Your task to perform on an android device: Open the calendar and show me this week's events? Image 0: 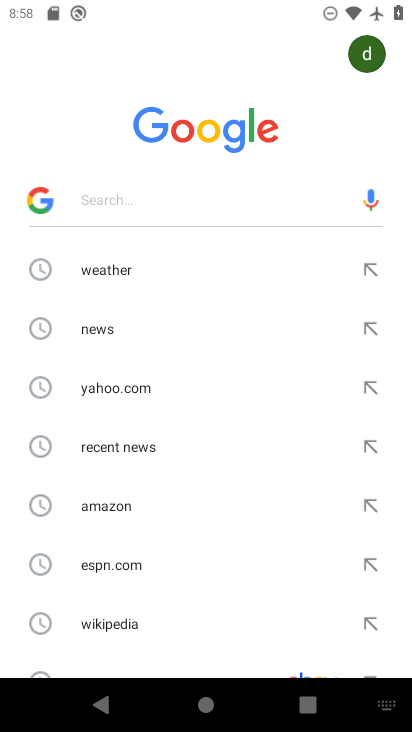
Step 0: press home button
Your task to perform on an android device: Open the calendar and show me this week's events? Image 1: 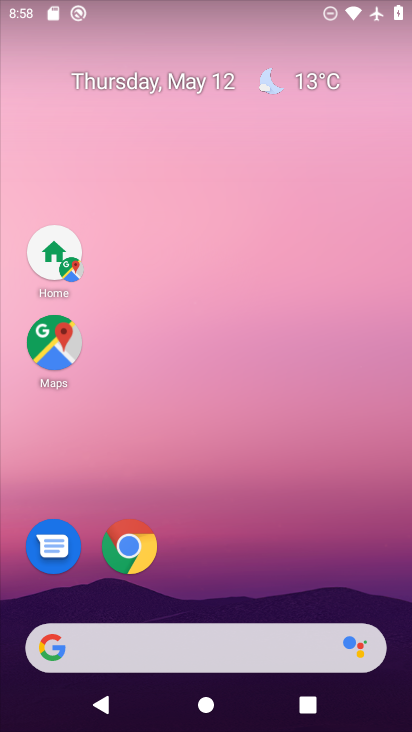
Step 1: drag from (152, 656) to (284, 207)
Your task to perform on an android device: Open the calendar and show me this week's events? Image 2: 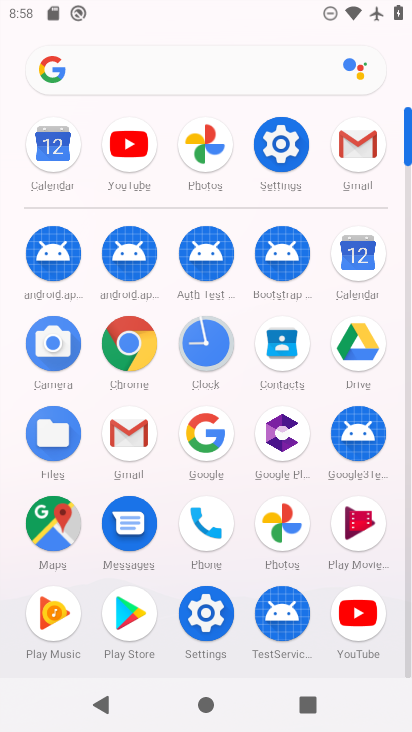
Step 2: click (365, 257)
Your task to perform on an android device: Open the calendar and show me this week's events? Image 3: 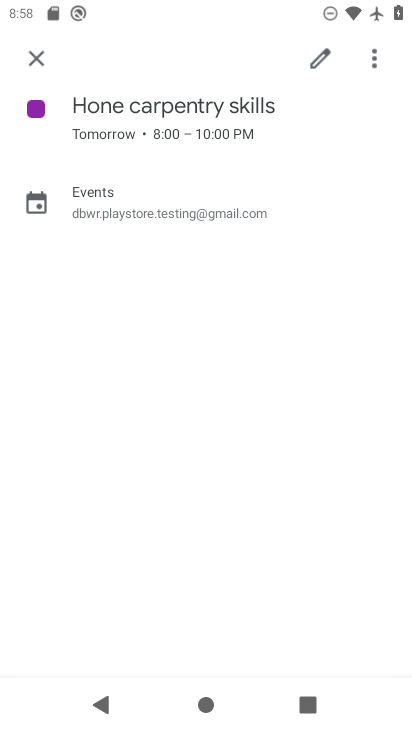
Step 3: click (35, 59)
Your task to perform on an android device: Open the calendar and show me this week's events? Image 4: 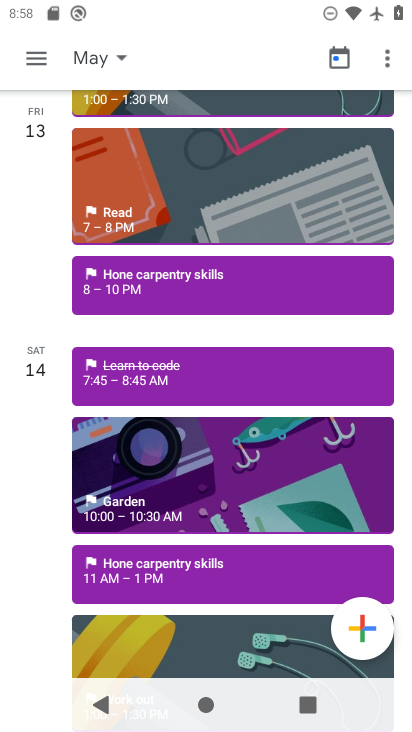
Step 4: click (89, 46)
Your task to perform on an android device: Open the calendar and show me this week's events? Image 5: 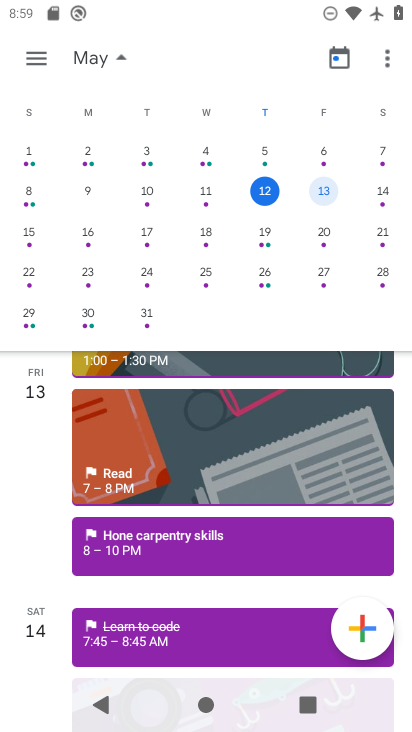
Step 5: click (271, 190)
Your task to perform on an android device: Open the calendar and show me this week's events? Image 6: 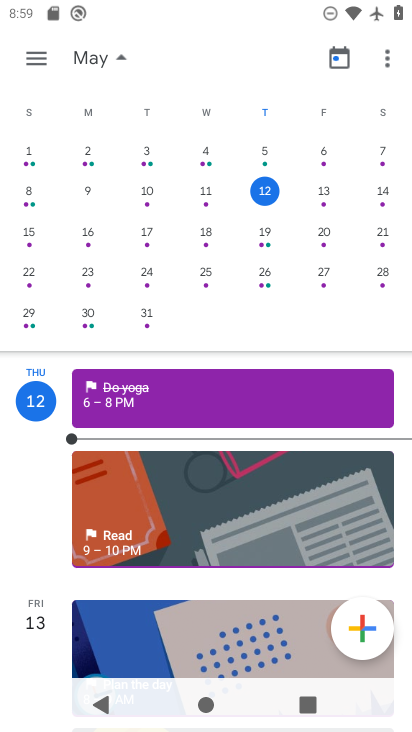
Step 6: click (37, 62)
Your task to perform on an android device: Open the calendar and show me this week's events? Image 7: 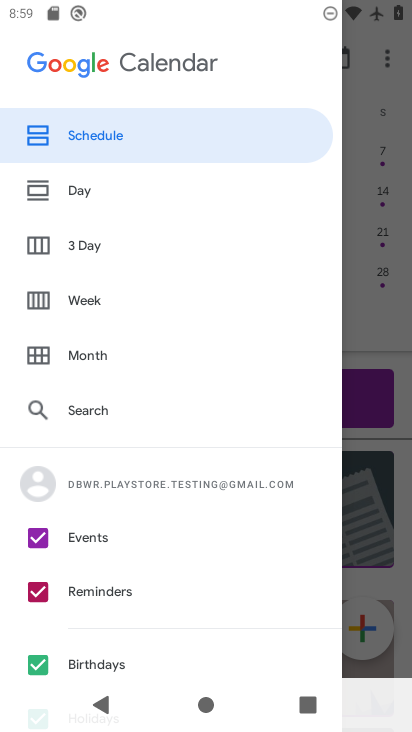
Step 7: click (73, 299)
Your task to perform on an android device: Open the calendar and show me this week's events? Image 8: 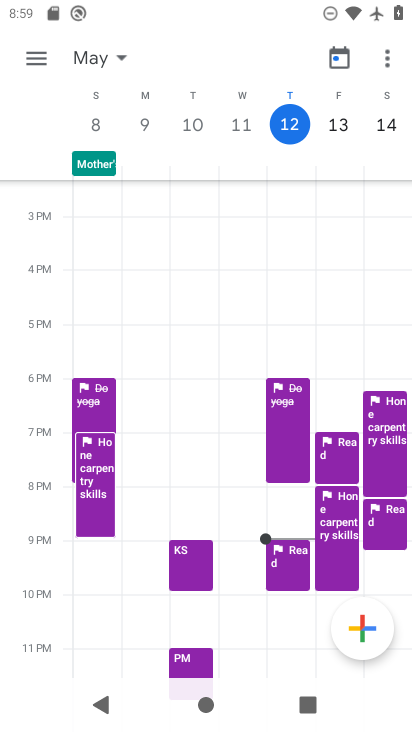
Step 8: click (38, 54)
Your task to perform on an android device: Open the calendar and show me this week's events? Image 9: 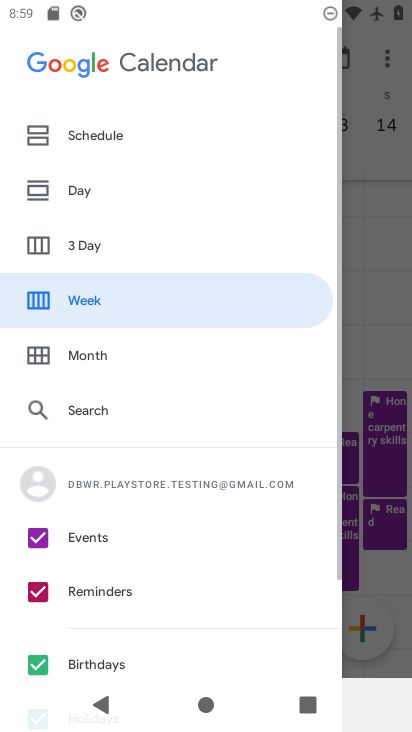
Step 9: click (99, 141)
Your task to perform on an android device: Open the calendar and show me this week's events? Image 10: 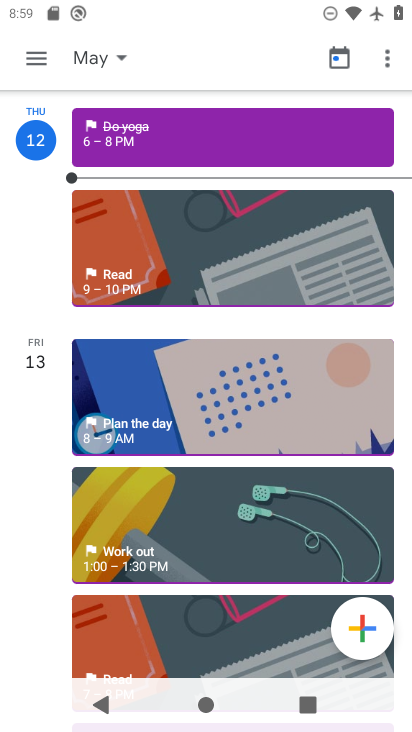
Step 10: drag from (180, 481) to (330, 81)
Your task to perform on an android device: Open the calendar and show me this week's events? Image 11: 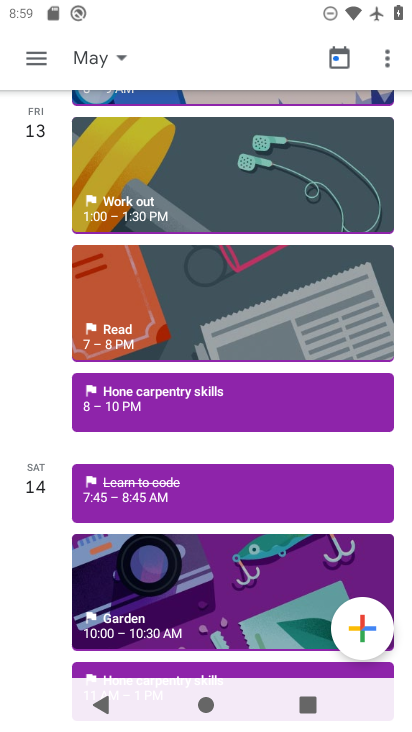
Step 11: click (179, 377)
Your task to perform on an android device: Open the calendar and show me this week's events? Image 12: 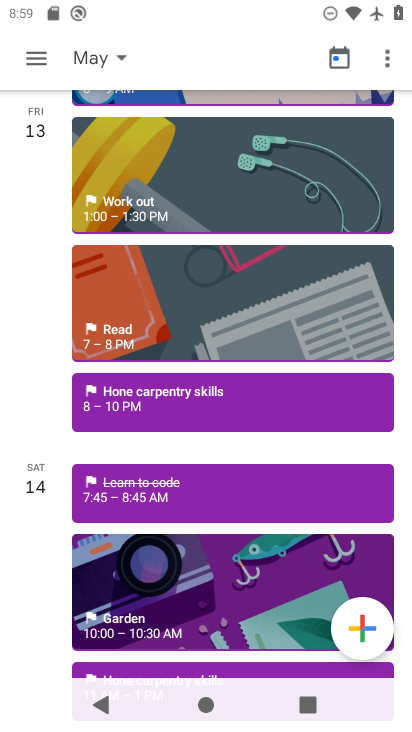
Step 12: click (173, 393)
Your task to perform on an android device: Open the calendar and show me this week's events? Image 13: 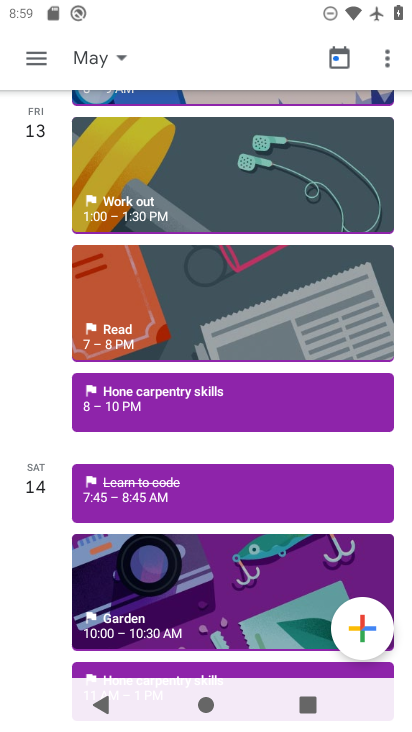
Step 13: click (125, 406)
Your task to perform on an android device: Open the calendar and show me this week's events? Image 14: 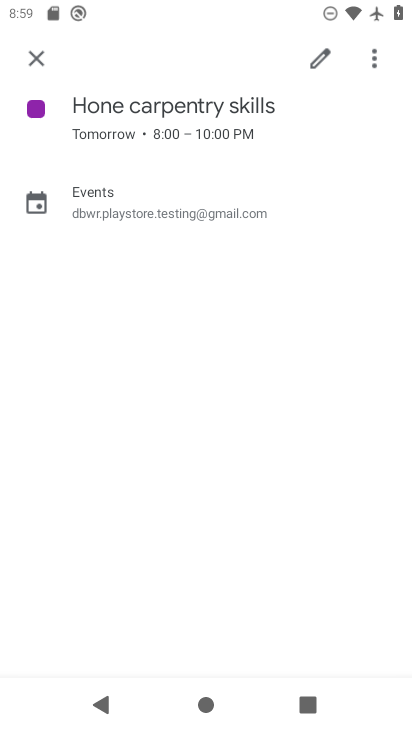
Step 14: task complete